Your task to perform on an android device: change text size in settings app Image 0: 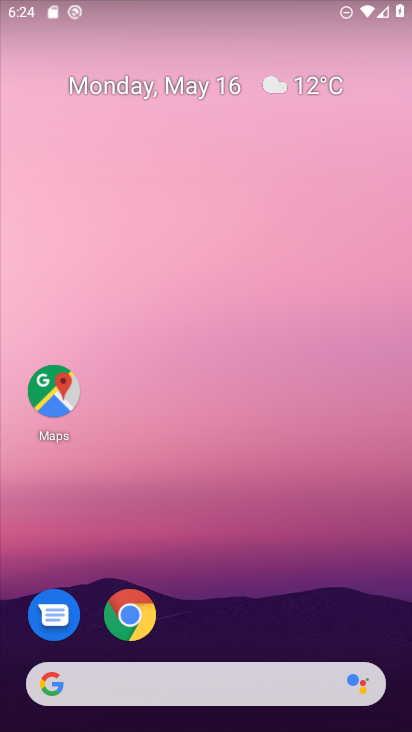
Step 0: drag from (233, 500) to (253, 202)
Your task to perform on an android device: change text size in settings app Image 1: 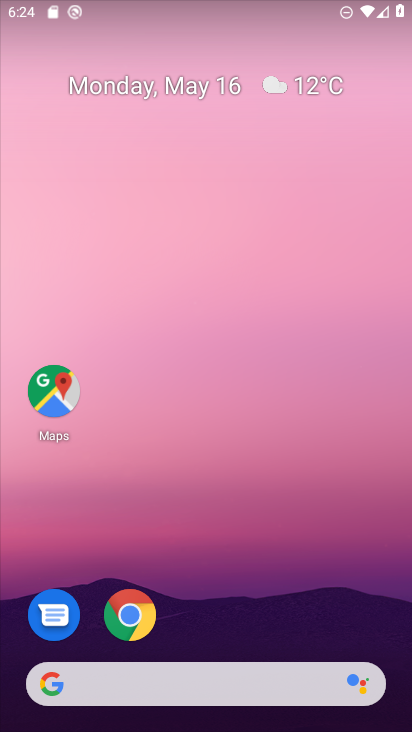
Step 1: drag from (245, 597) to (272, 53)
Your task to perform on an android device: change text size in settings app Image 2: 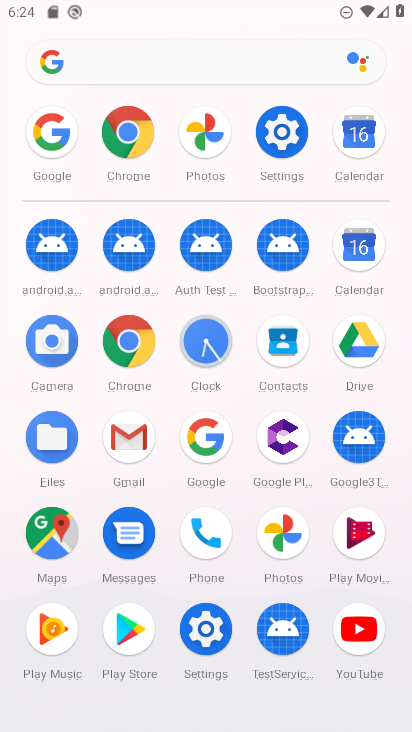
Step 2: click (279, 192)
Your task to perform on an android device: change text size in settings app Image 3: 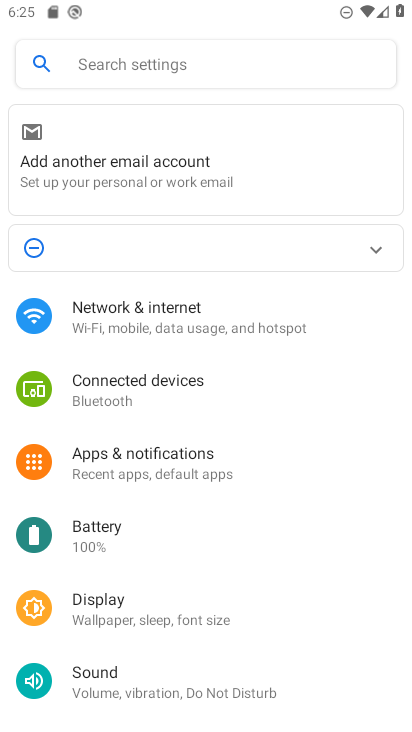
Step 3: drag from (130, 652) to (281, 236)
Your task to perform on an android device: change text size in settings app Image 4: 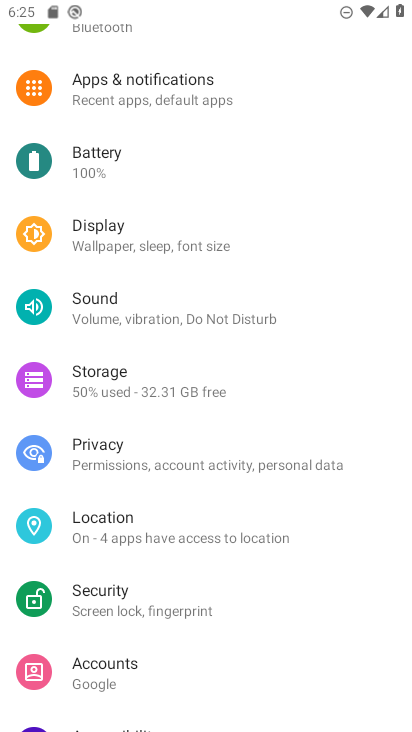
Step 4: click (108, 247)
Your task to perform on an android device: change text size in settings app Image 5: 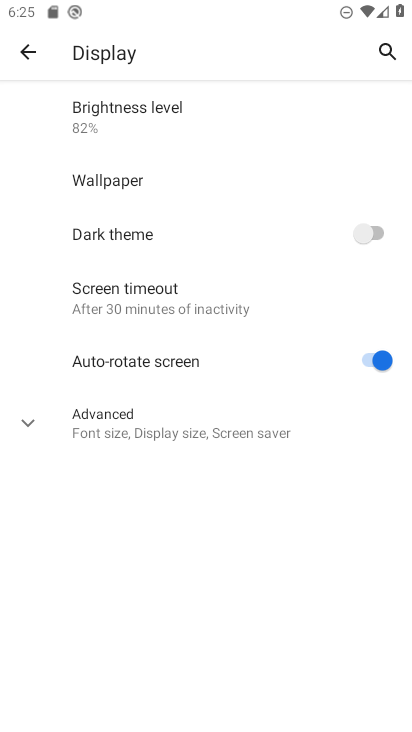
Step 5: click (130, 431)
Your task to perform on an android device: change text size in settings app Image 6: 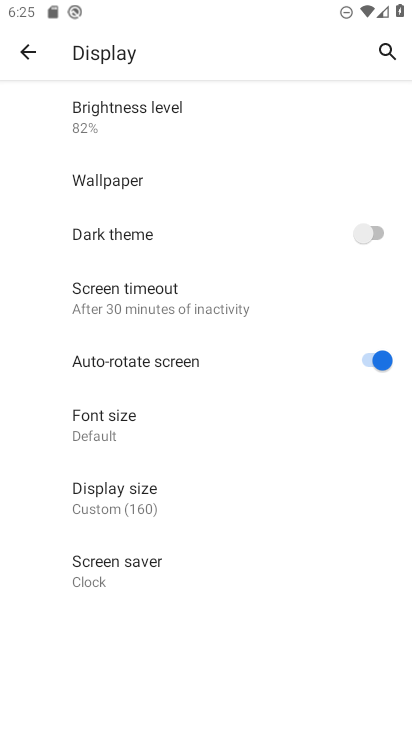
Step 6: click (110, 438)
Your task to perform on an android device: change text size in settings app Image 7: 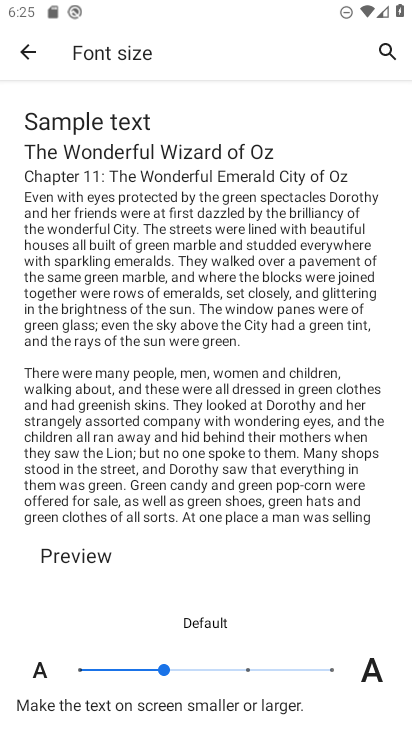
Step 7: click (247, 670)
Your task to perform on an android device: change text size in settings app Image 8: 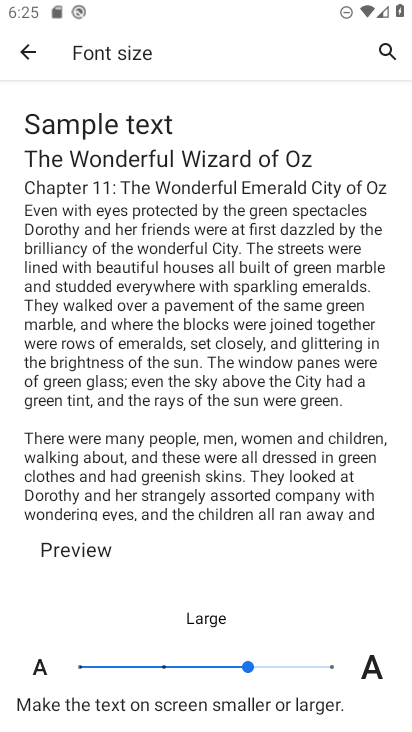
Step 8: task complete